Your task to perform on an android device: Go to ESPN.com Image 0: 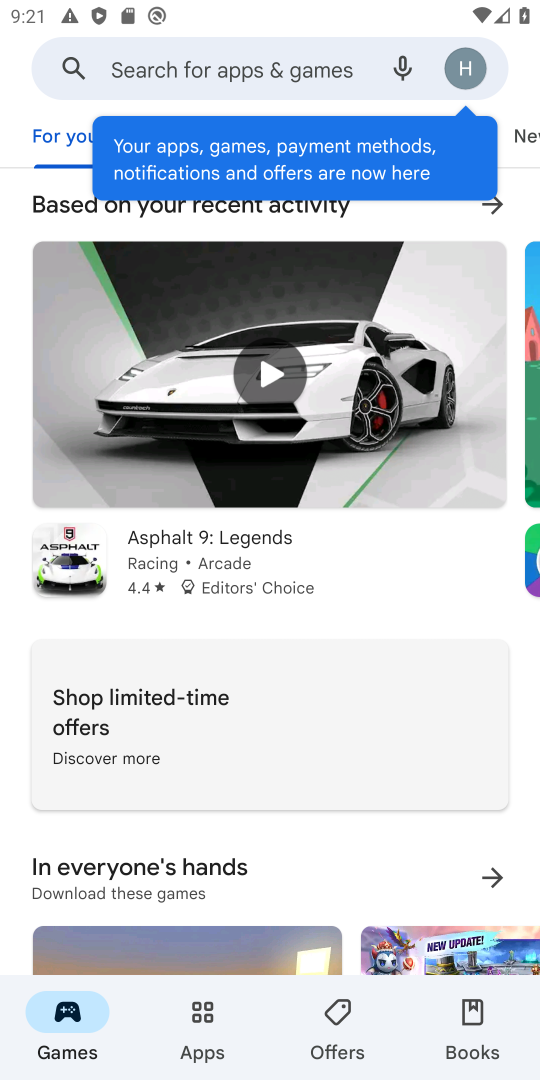
Step 0: press home button
Your task to perform on an android device: Go to ESPN.com Image 1: 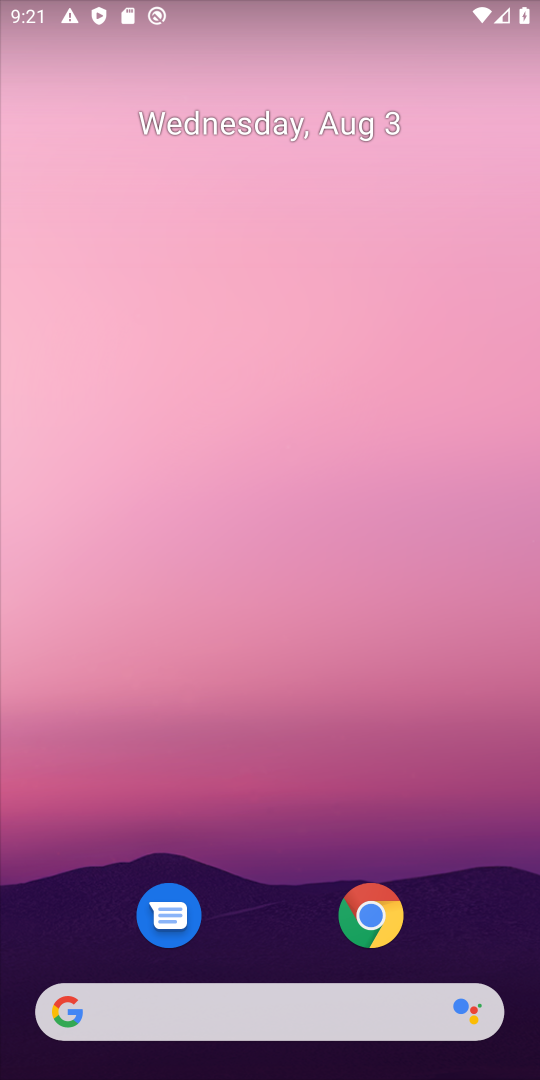
Step 1: drag from (176, 973) to (185, 365)
Your task to perform on an android device: Go to ESPN.com Image 2: 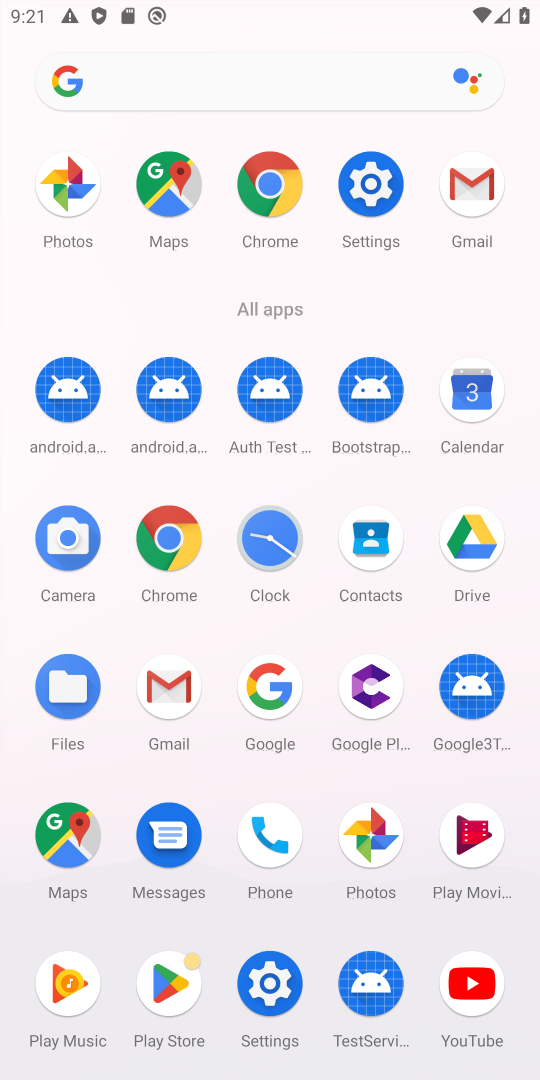
Step 2: click (258, 178)
Your task to perform on an android device: Go to ESPN.com Image 3: 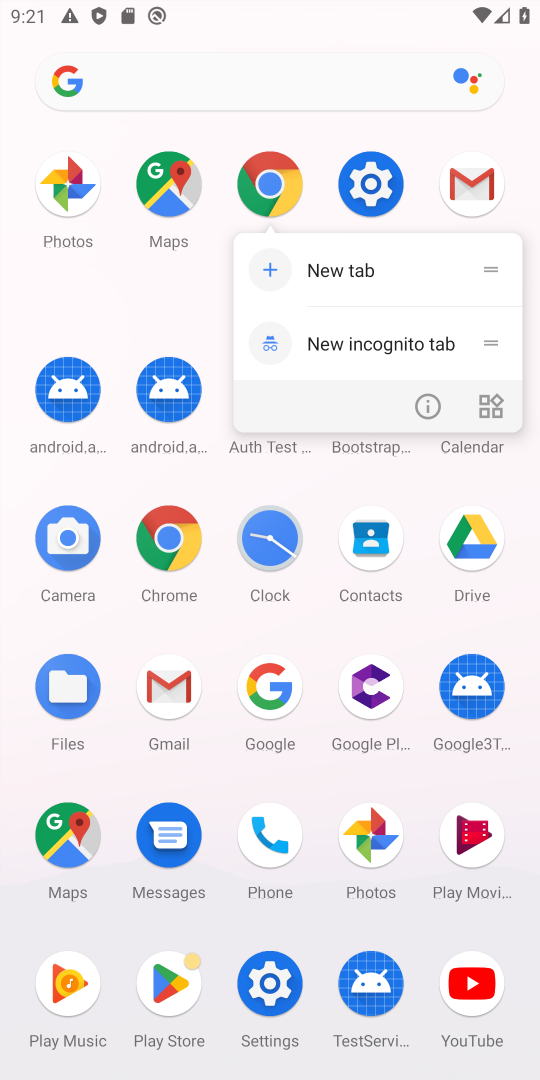
Step 3: click (295, 178)
Your task to perform on an android device: Go to ESPN.com Image 4: 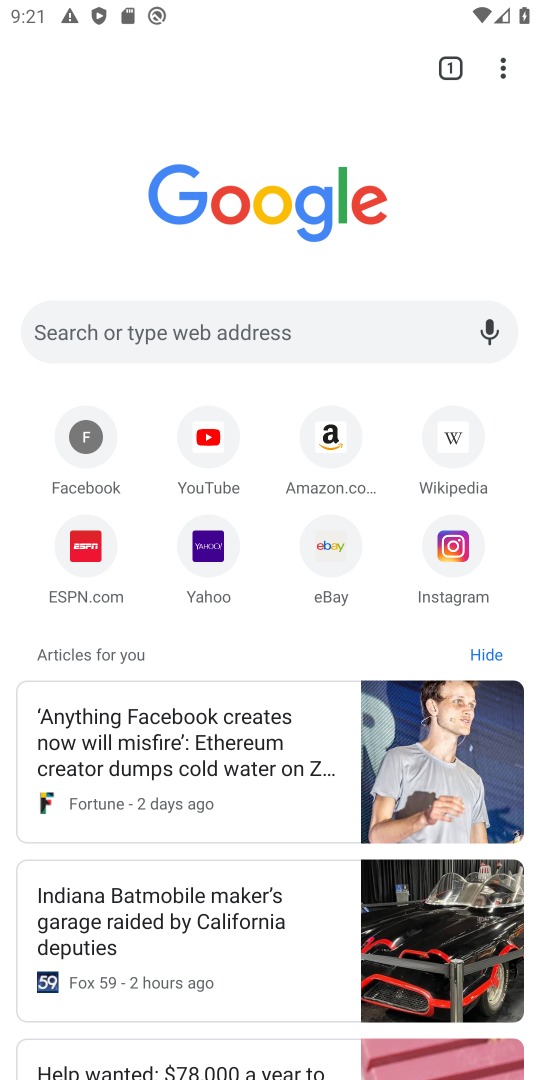
Step 4: click (84, 524)
Your task to perform on an android device: Go to ESPN.com Image 5: 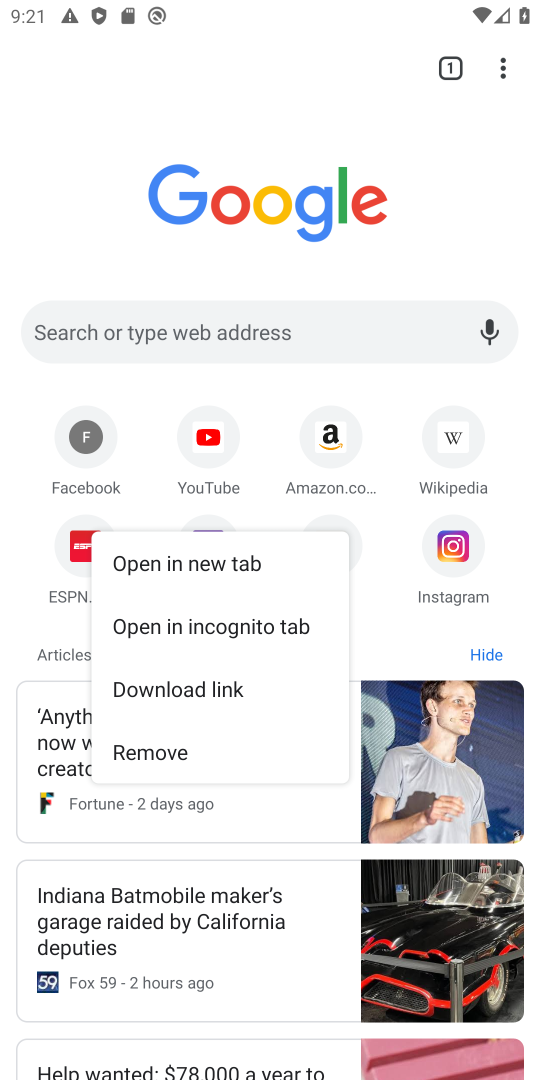
Step 5: click (57, 537)
Your task to perform on an android device: Go to ESPN.com Image 6: 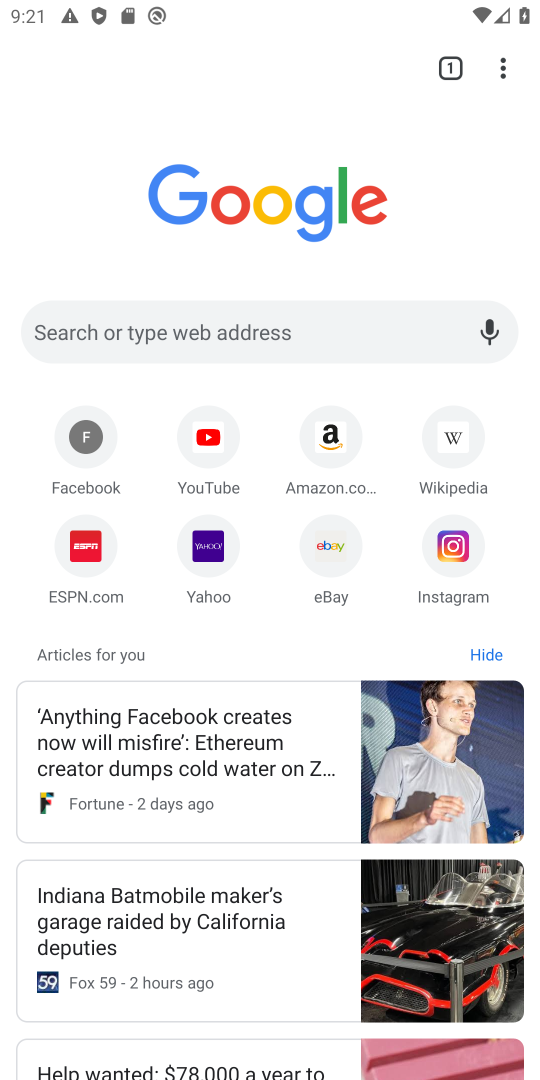
Step 6: click (77, 543)
Your task to perform on an android device: Go to ESPN.com Image 7: 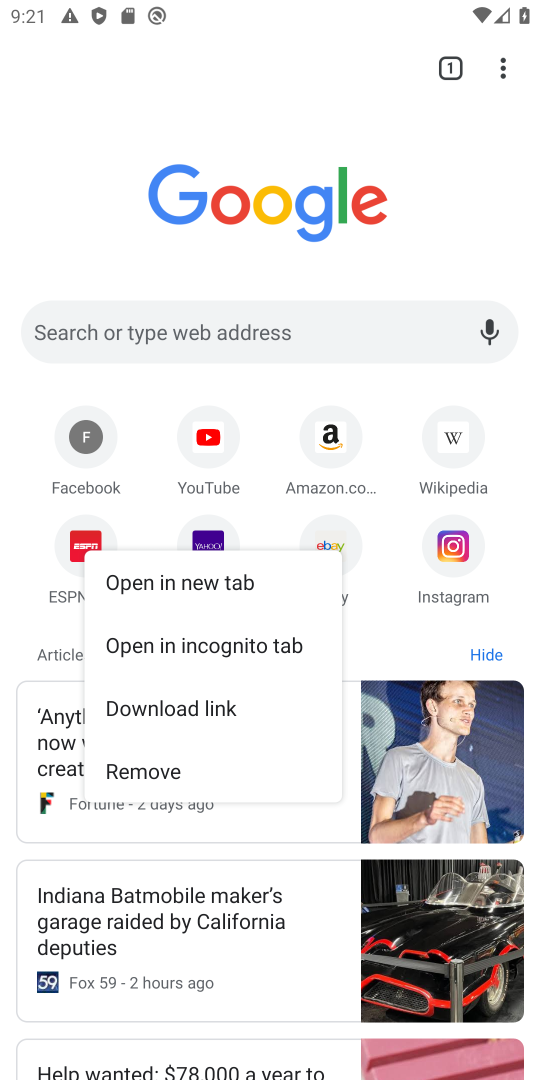
Step 7: click (77, 543)
Your task to perform on an android device: Go to ESPN.com Image 8: 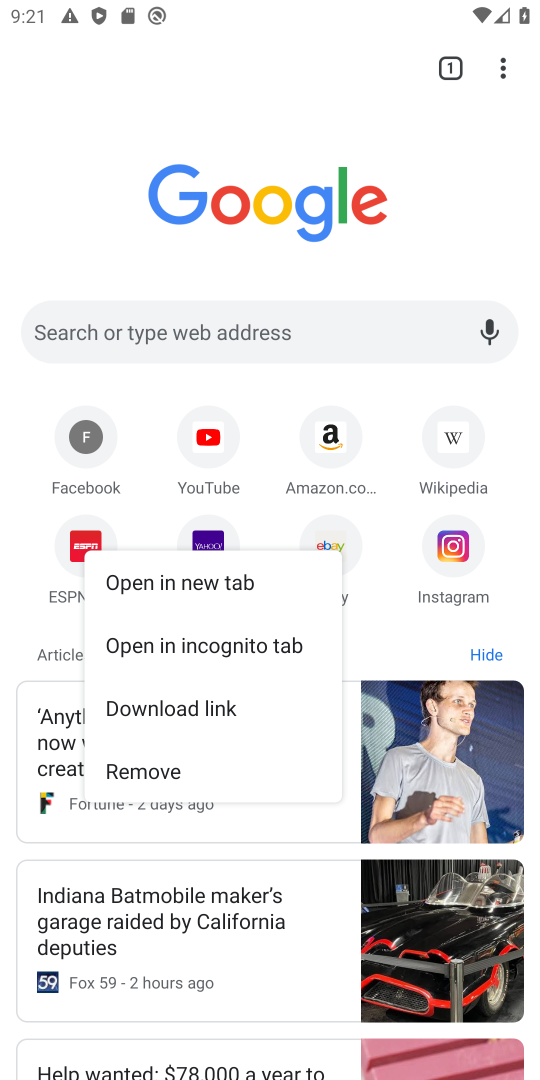
Step 8: click (37, 238)
Your task to perform on an android device: Go to ESPN.com Image 9: 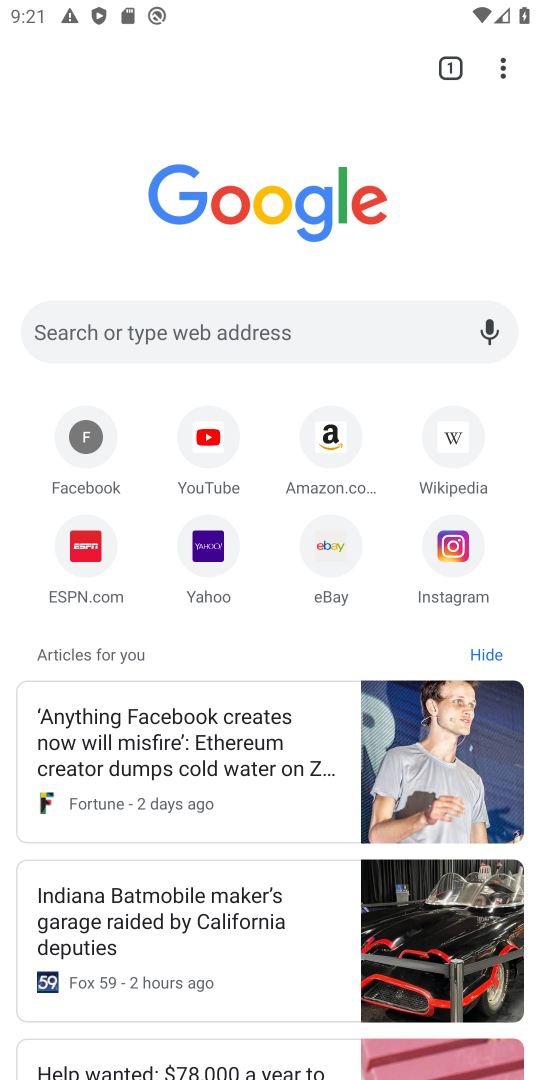
Step 9: click (69, 535)
Your task to perform on an android device: Go to ESPN.com Image 10: 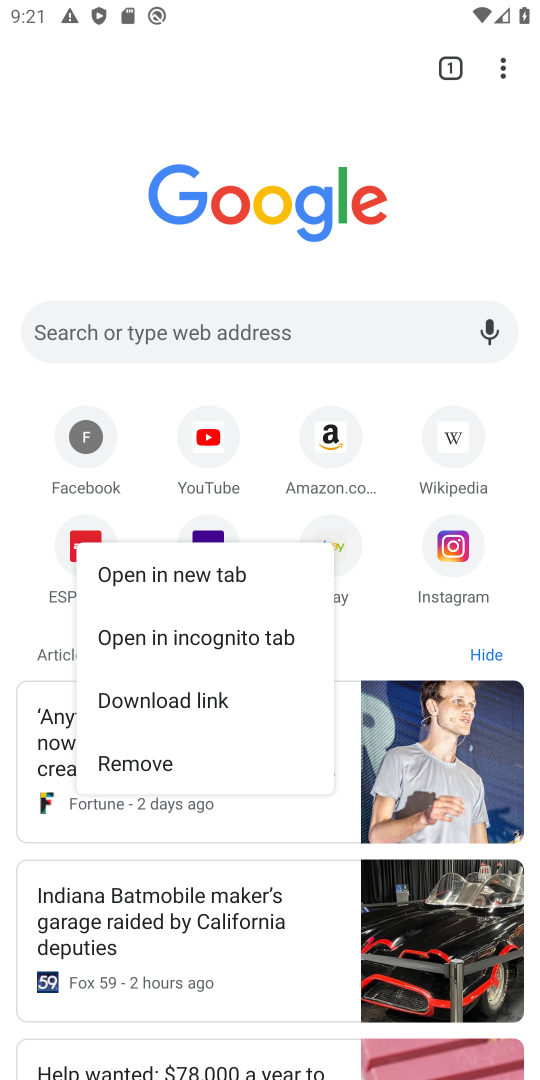
Step 10: click (82, 549)
Your task to perform on an android device: Go to ESPN.com Image 11: 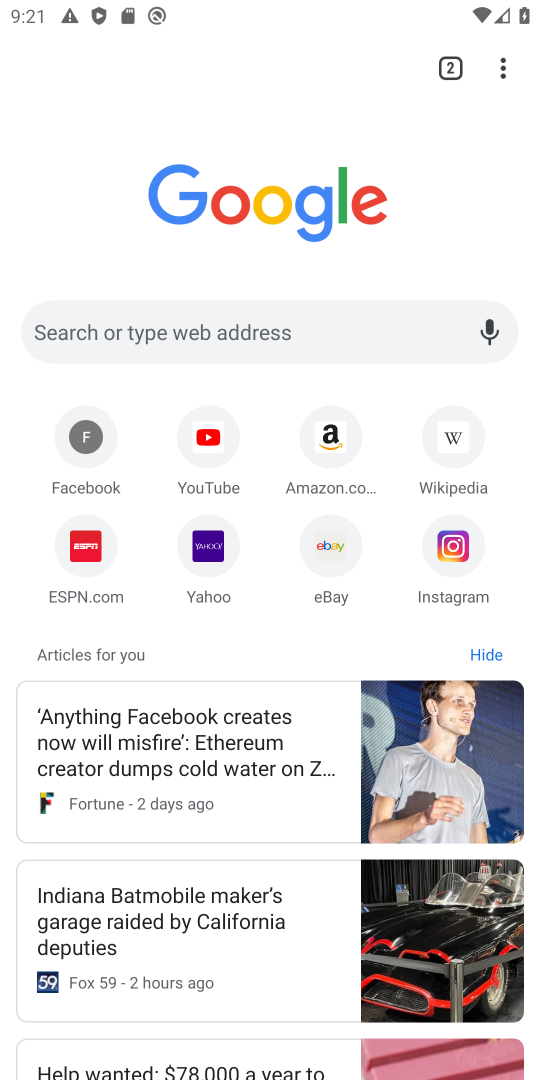
Step 11: click (76, 548)
Your task to perform on an android device: Go to ESPN.com Image 12: 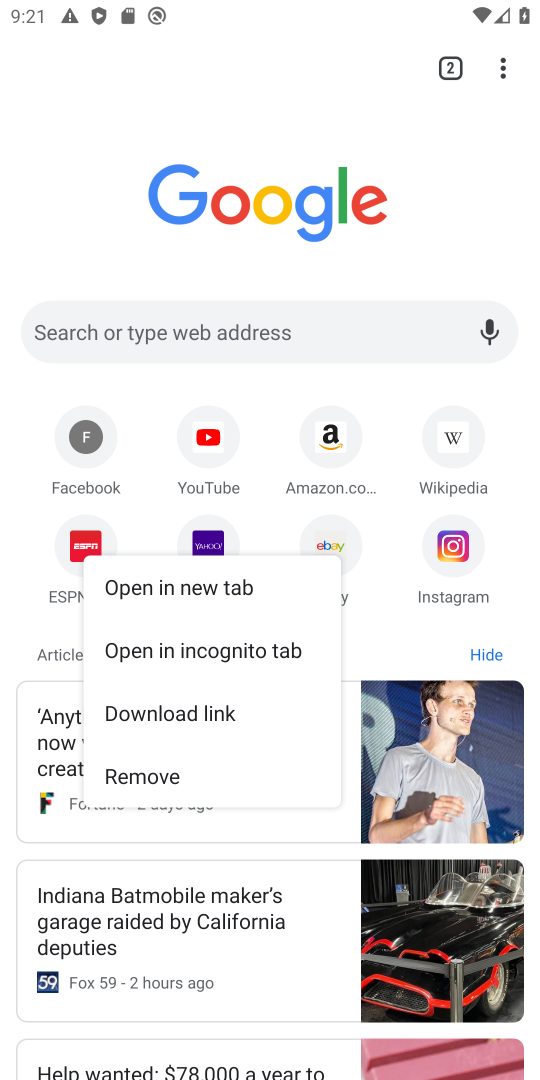
Step 12: click (91, 517)
Your task to perform on an android device: Go to ESPN.com Image 13: 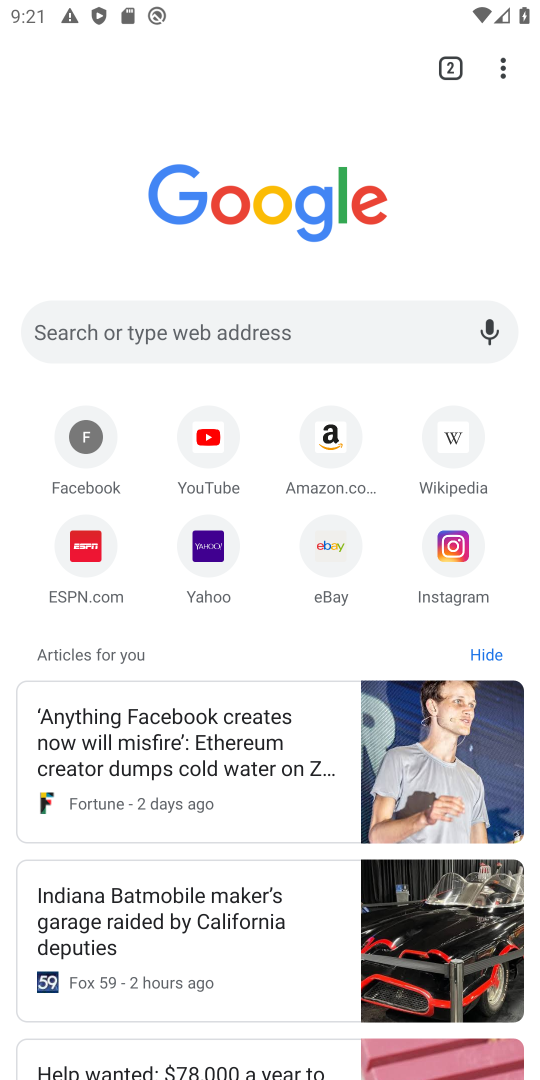
Step 13: click (73, 566)
Your task to perform on an android device: Go to ESPN.com Image 14: 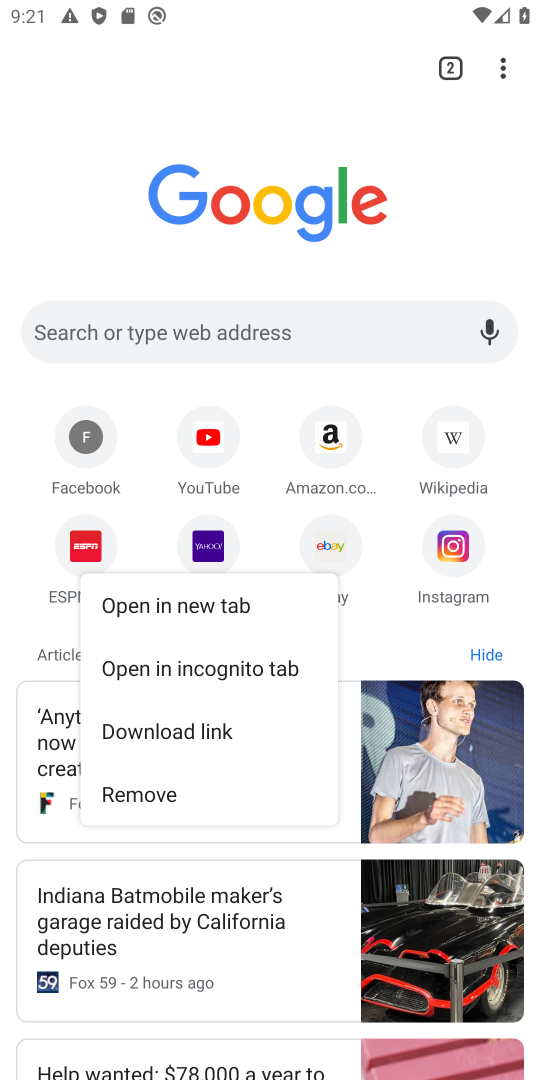
Step 14: click (69, 551)
Your task to perform on an android device: Go to ESPN.com Image 15: 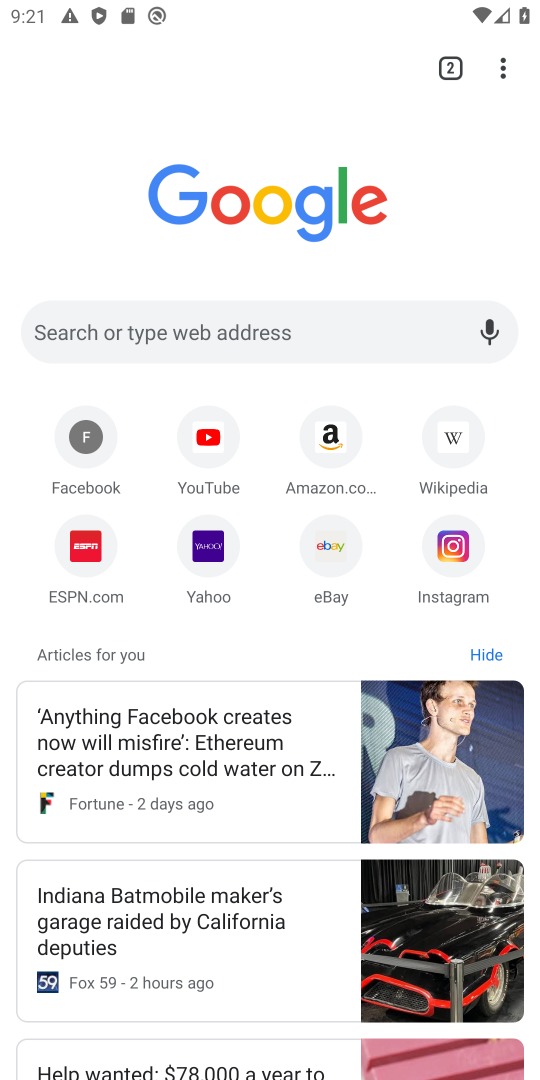
Step 15: click (90, 545)
Your task to perform on an android device: Go to ESPN.com Image 16: 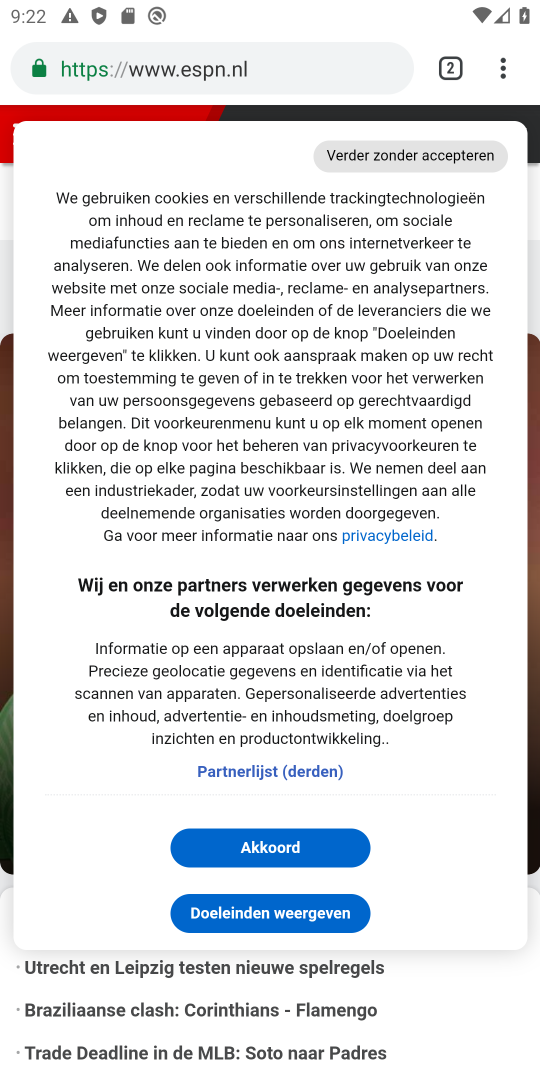
Step 16: task complete